Your task to perform on an android device: Search for pizza restaurants on Maps Image 0: 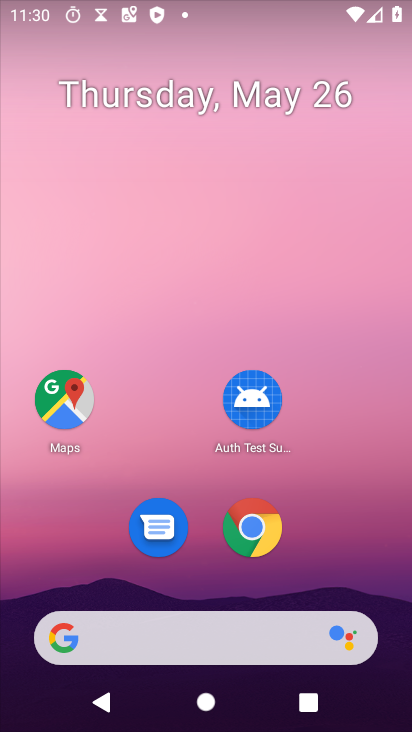
Step 0: drag from (344, 487) to (347, 4)
Your task to perform on an android device: Search for pizza restaurants on Maps Image 1: 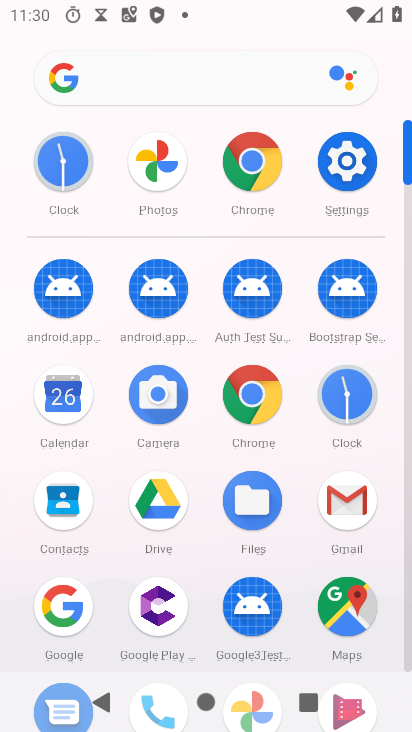
Step 1: click (341, 630)
Your task to perform on an android device: Search for pizza restaurants on Maps Image 2: 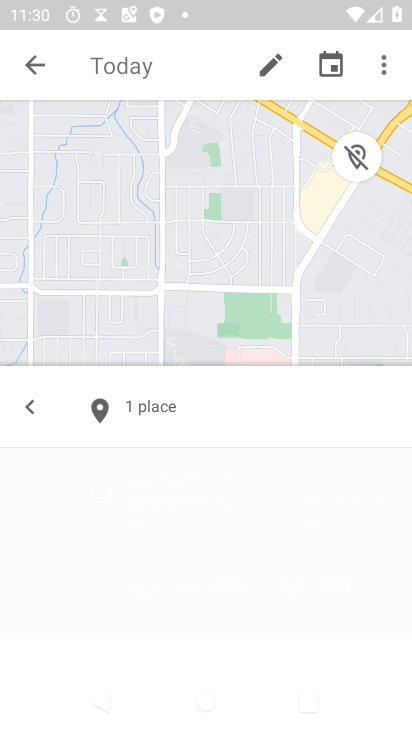
Step 2: click (27, 65)
Your task to perform on an android device: Search for pizza restaurants on Maps Image 3: 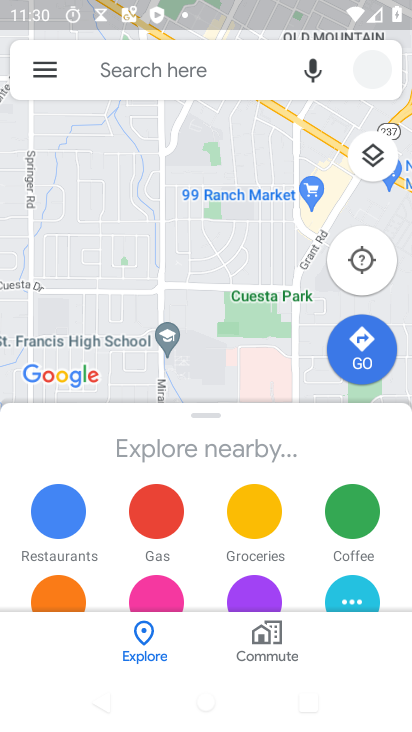
Step 3: click (114, 70)
Your task to perform on an android device: Search for pizza restaurants on Maps Image 4: 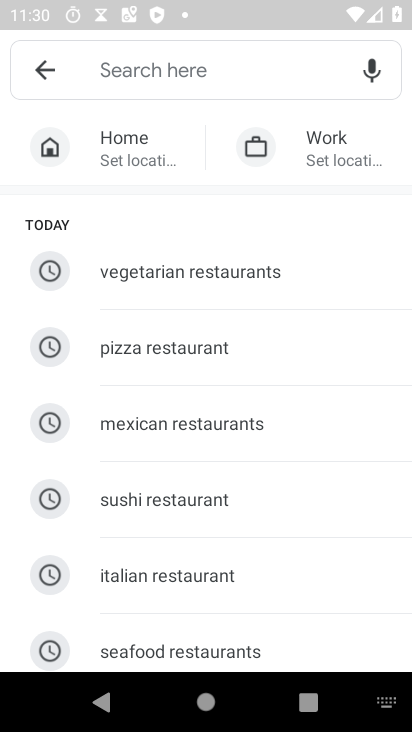
Step 4: click (156, 352)
Your task to perform on an android device: Search for pizza restaurants on Maps Image 5: 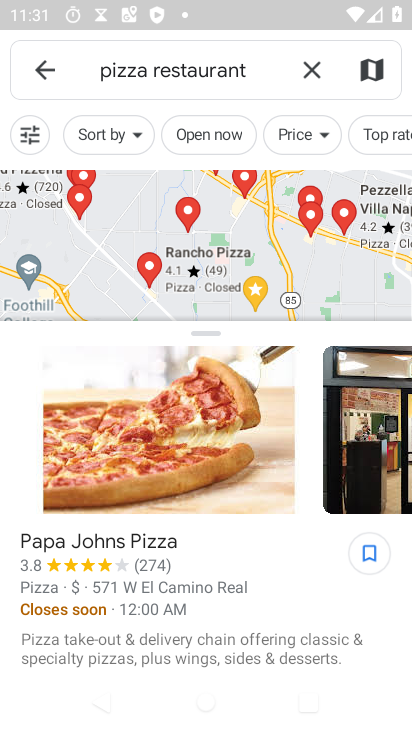
Step 5: task complete